Your task to perform on an android device: Open the web browser Image 0: 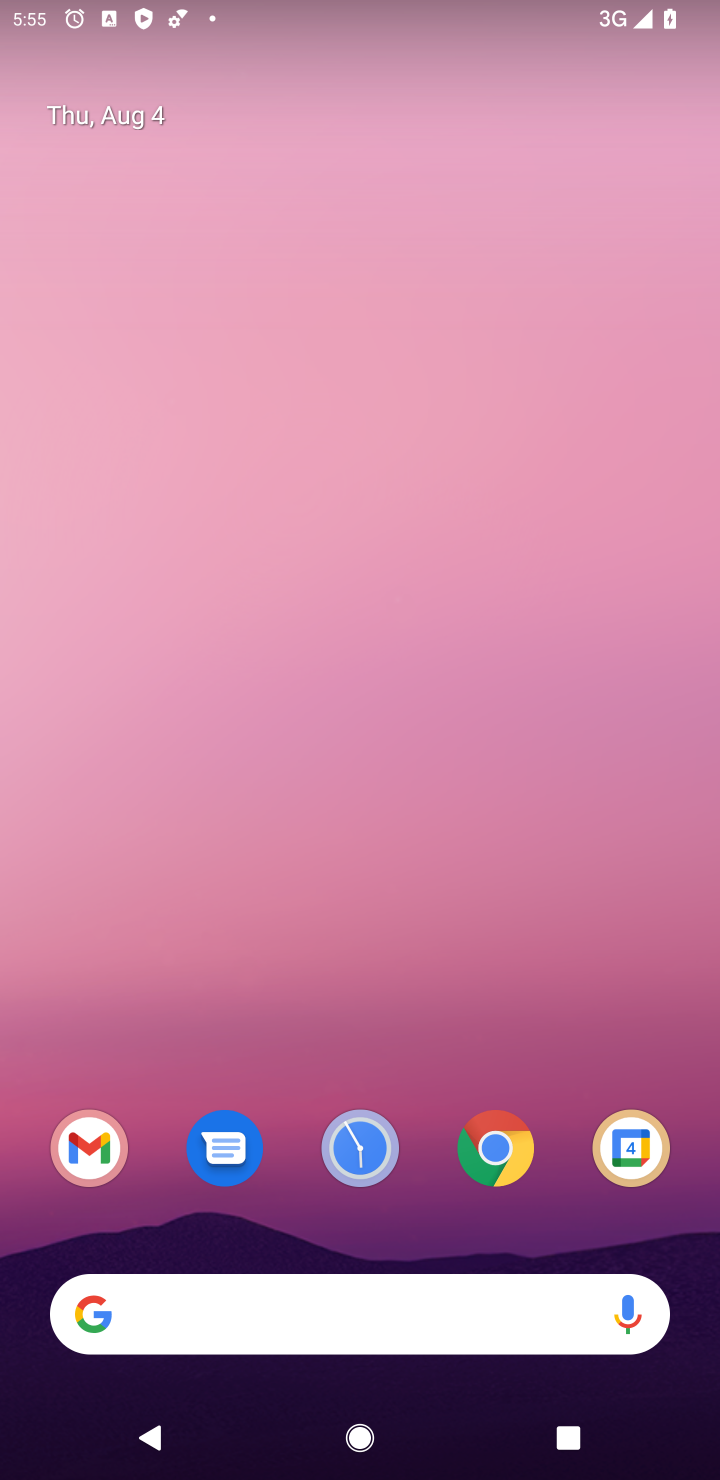
Step 0: click (489, 1137)
Your task to perform on an android device: Open the web browser Image 1: 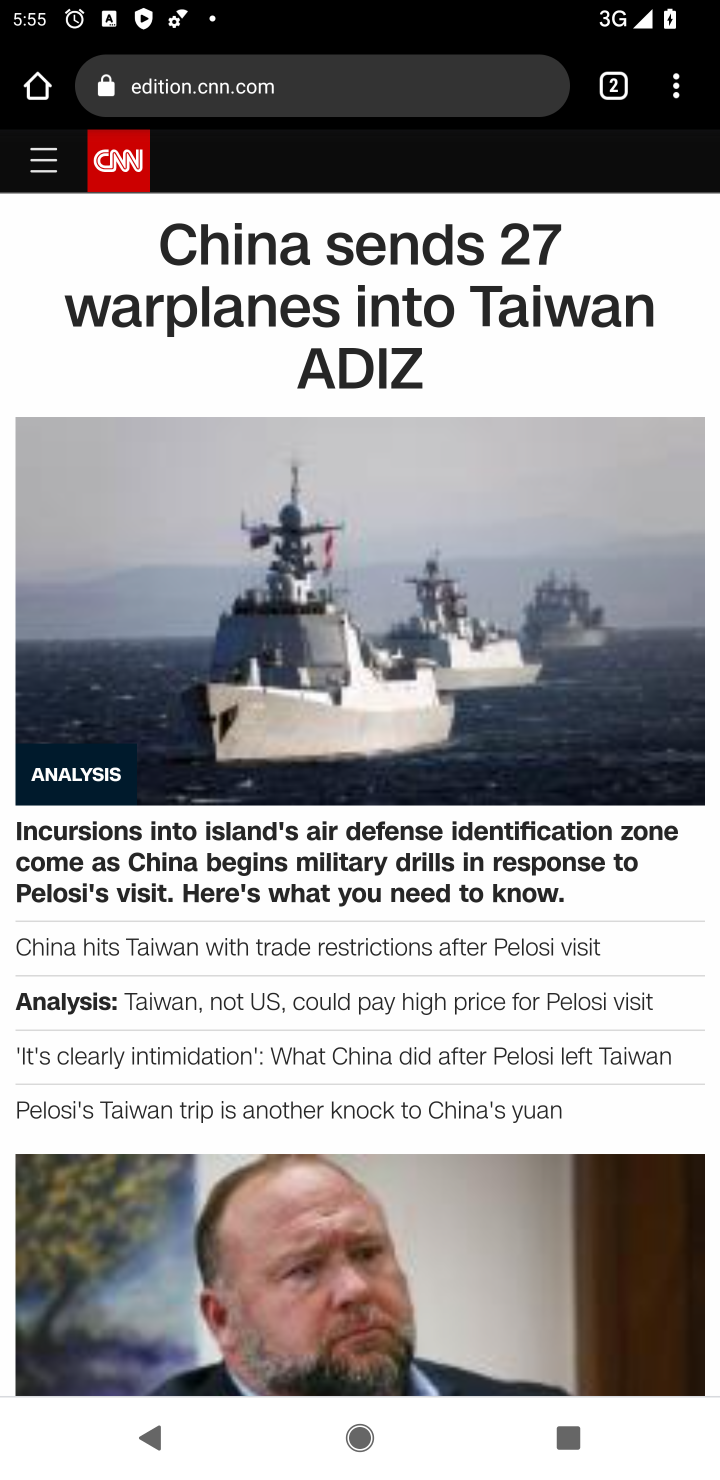
Step 1: task complete